Your task to perform on an android device: allow cookies in the chrome app Image 0: 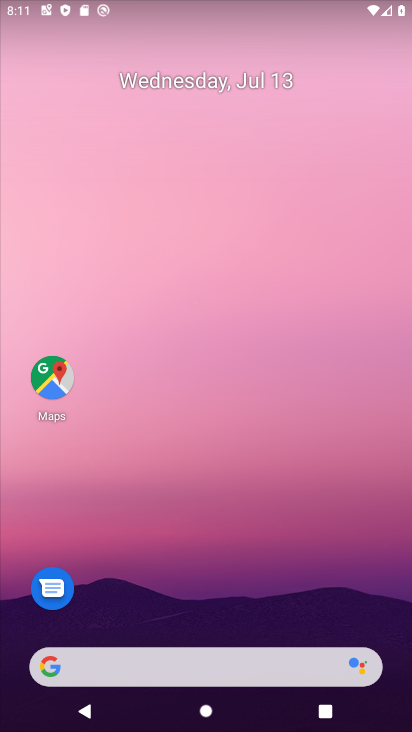
Step 0: drag from (120, 585) to (246, 35)
Your task to perform on an android device: allow cookies in the chrome app Image 1: 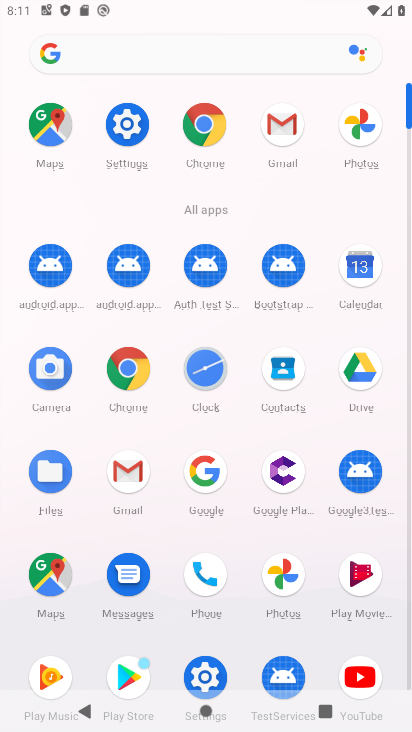
Step 1: click (193, 132)
Your task to perform on an android device: allow cookies in the chrome app Image 2: 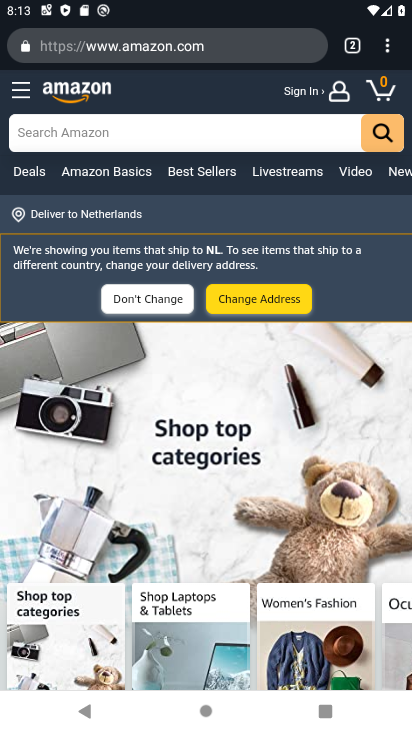
Step 2: click (393, 47)
Your task to perform on an android device: allow cookies in the chrome app Image 3: 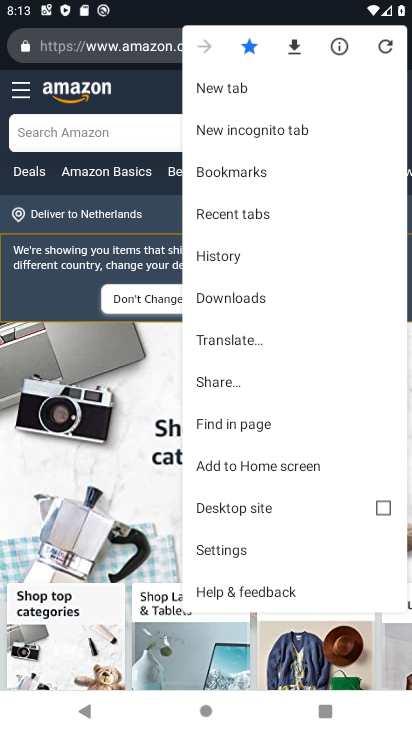
Step 3: click (229, 548)
Your task to perform on an android device: allow cookies in the chrome app Image 4: 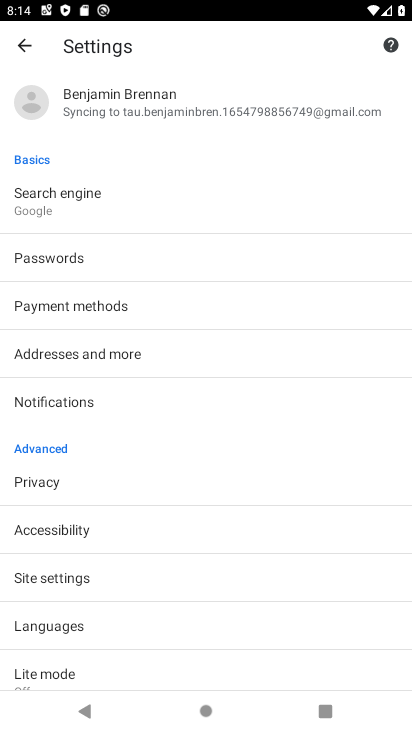
Step 4: click (52, 578)
Your task to perform on an android device: allow cookies in the chrome app Image 5: 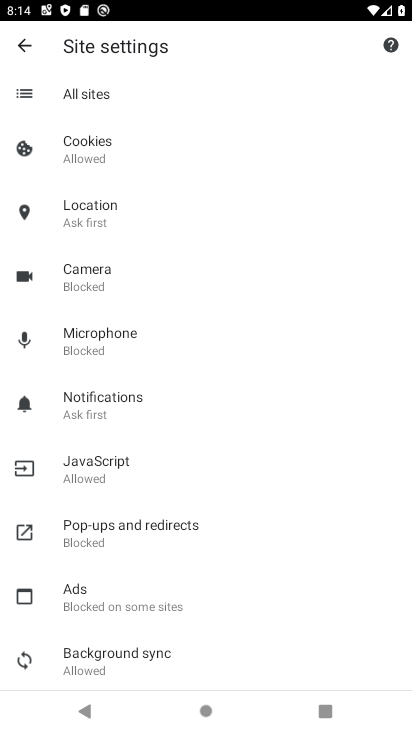
Step 5: click (115, 145)
Your task to perform on an android device: allow cookies in the chrome app Image 6: 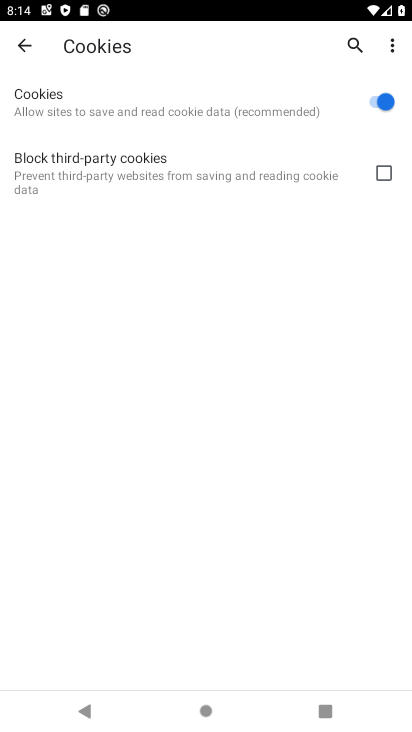
Step 6: task complete